Your task to perform on an android device: toggle notifications settings in the gmail app Image 0: 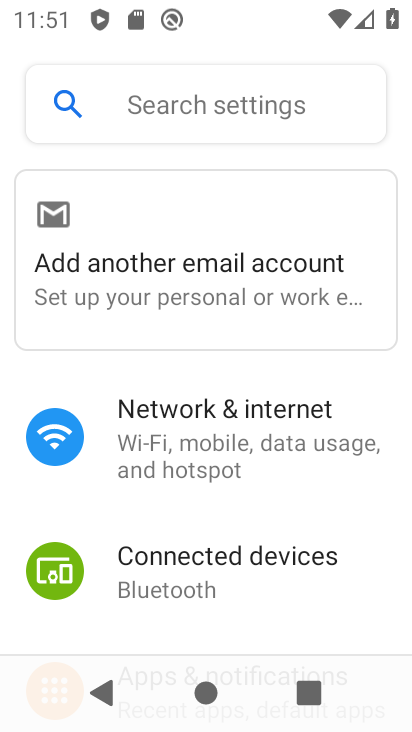
Step 0: press home button
Your task to perform on an android device: toggle notifications settings in the gmail app Image 1: 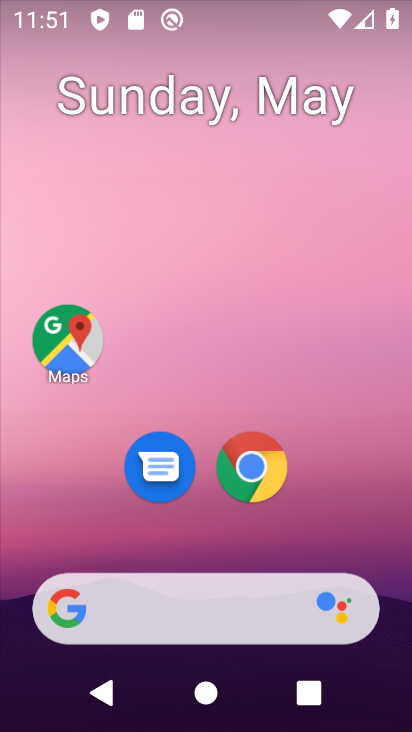
Step 1: drag from (227, 542) to (221, 134)
Your task to perform on an android device: toggle notifications settings in the gmail app Image 2: 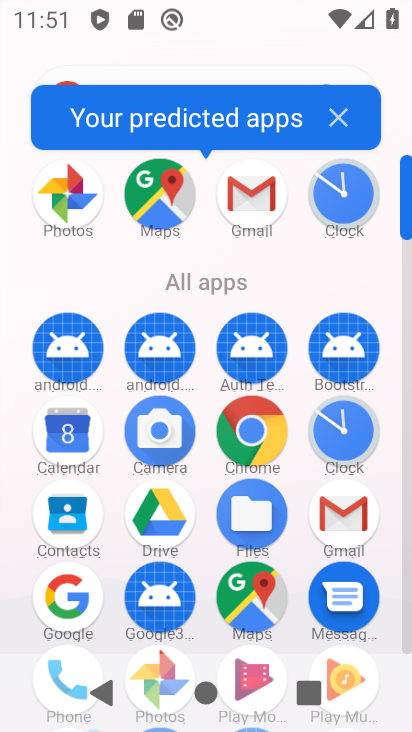
Step 2: click (348, 501)
Your task to perform on an android device: toggle notifications settings in the gmail app Image 3: 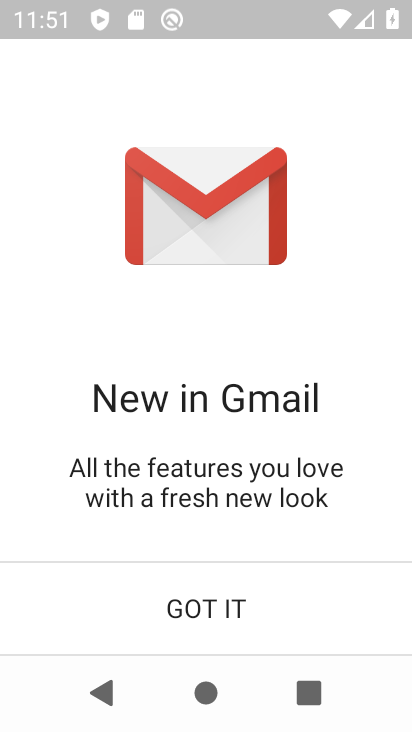
Step 3: click (213, 605)
Your task to perform on an android device: toggle notifications settings in the gmail app Image 4: 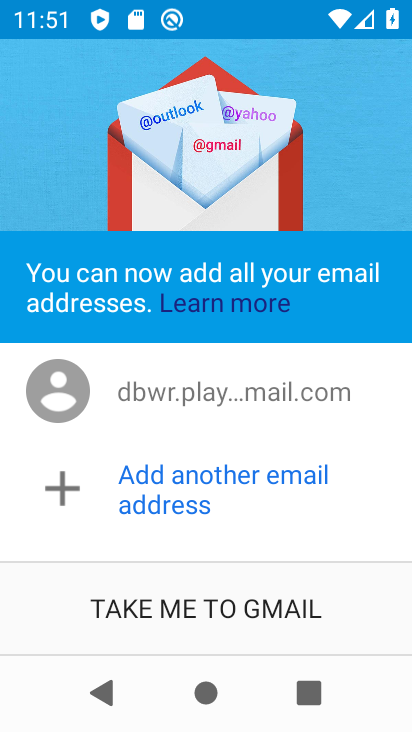
Step 4: click (224, 613)
Your task to perform on an android device: toggle notifications settings in the gmail app Image 5: 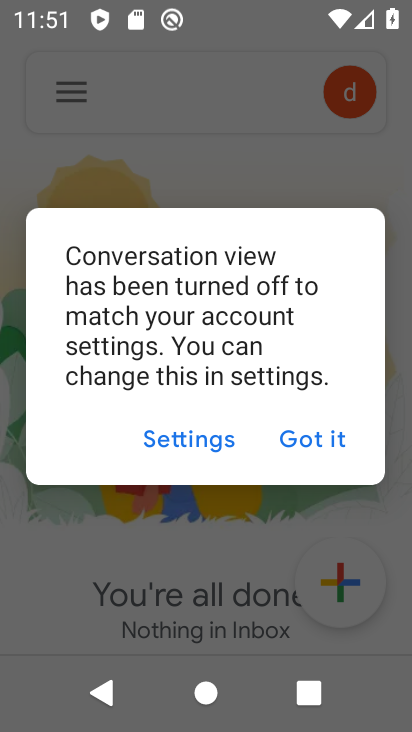
Step 5: click (302, 445)
Your task to perform on an android device: toggle notifications settings in the gmail app Image 6: 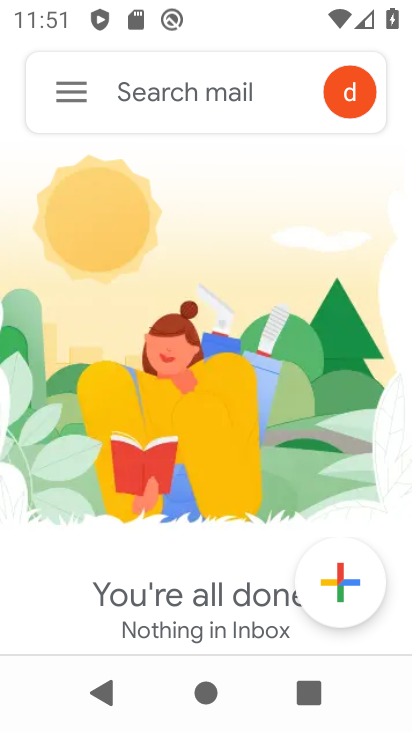
Step 6: click (68, 100)
Your task to perform on an android device: toggle notifications settings in the gmail app Image 7: 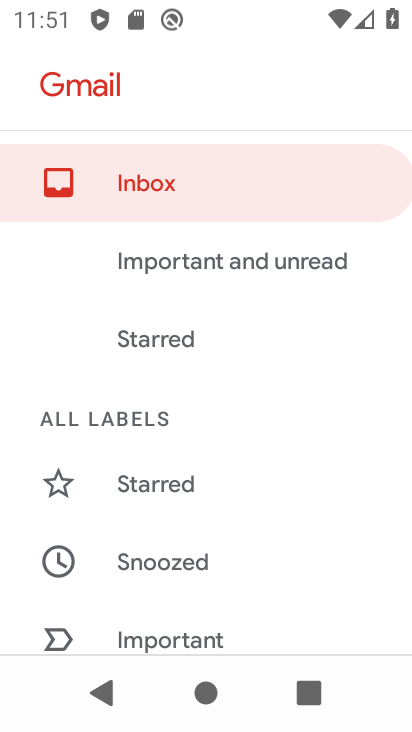
Step 7: drag from (168, 588) to (214, 11)
Your task to perform on an android device: toggle notifications settings in the gmail app Image 8: 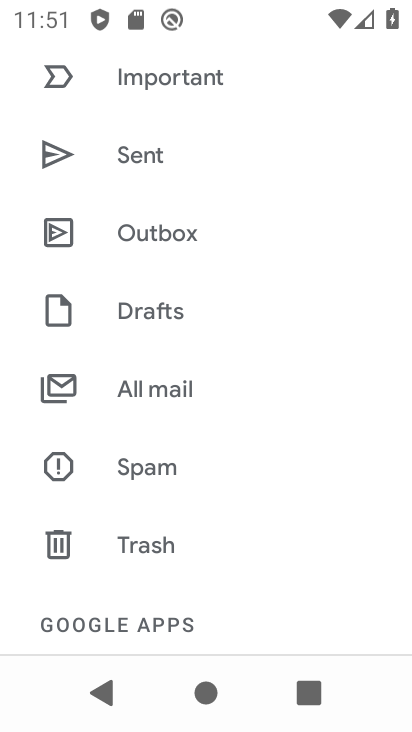
Step 8: drag from (157, 551) to (189, 58)
Your task to perform on an android device: toggle notifications settings in the gmail app Image 9: 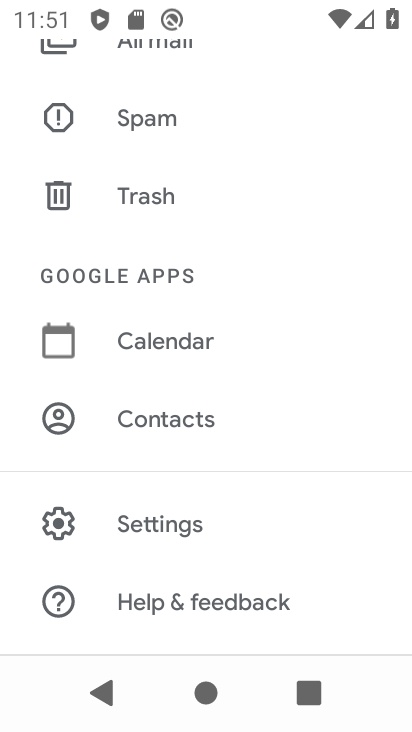
Step 9: click (180, 513)
Your task to perform on an android device: toggle notifications settings in the gmail app Image 10: 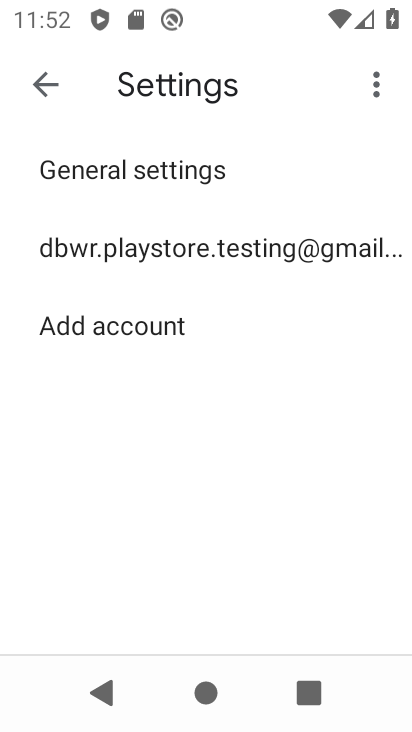
Step 10: click (149, 172)
Your task to perform on an android device: toggle notifications settings in the gmail app Image 11: 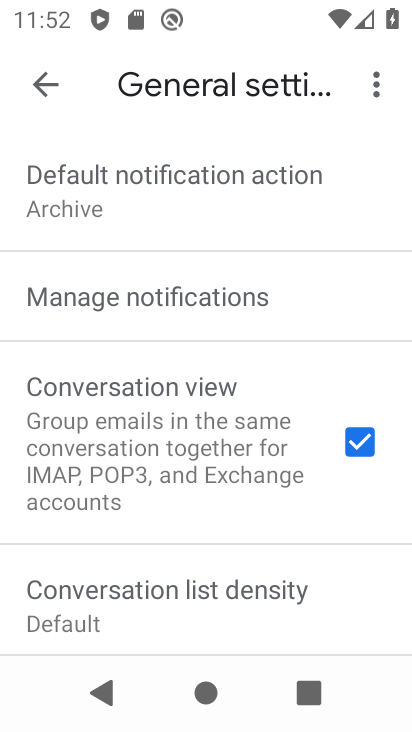
Step 11: click (143, 285)
Your task to perform on an android device: toggle notifications settings in the gmail app Image 12: 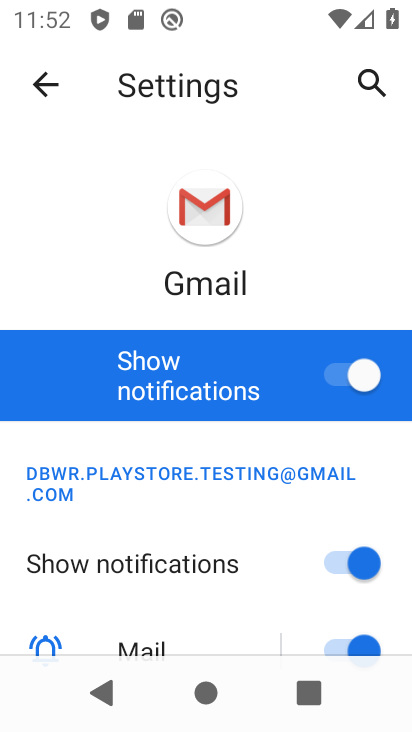
Step 12: click (338, 369)
Your task to perform on an android device: toggle notifications settings in the gmail app Image 13: 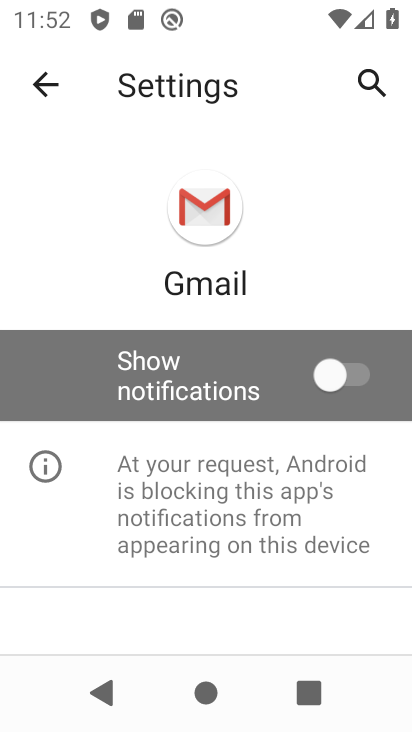
Step 13: task complete